Your task to perform on an android device: see creations saved in the google photos Image 0: 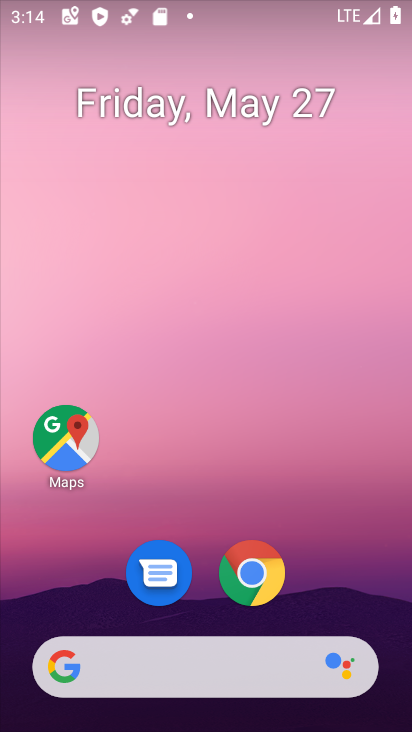
Step 0: drag from (254, 487) to (286, 0)
Your task to perform on an android device: see creations saved in the google photos Image 1: 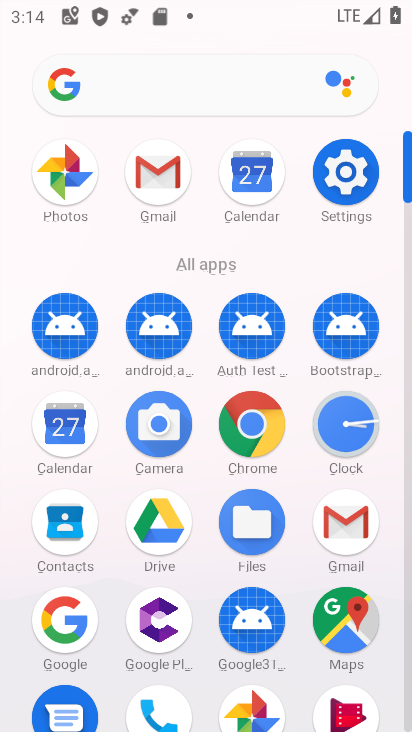
Step 1: click (53, 169)
Your task to perform on an android device: see creations saved in the google photos Image 2: 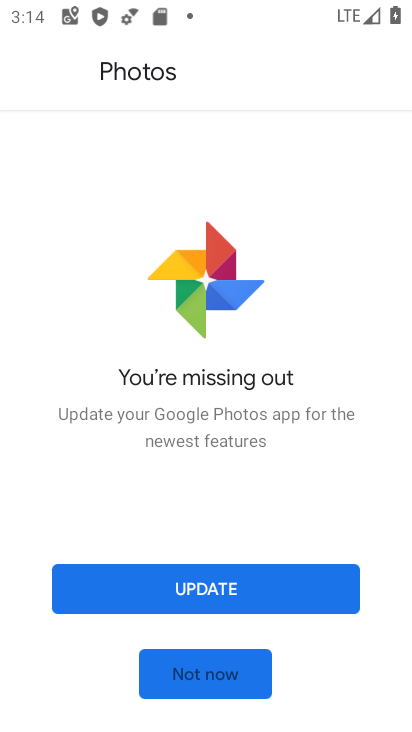
Step 2: click (241, 671)
Your task to perform on an android device: see creations saved in the google photos Image 3: 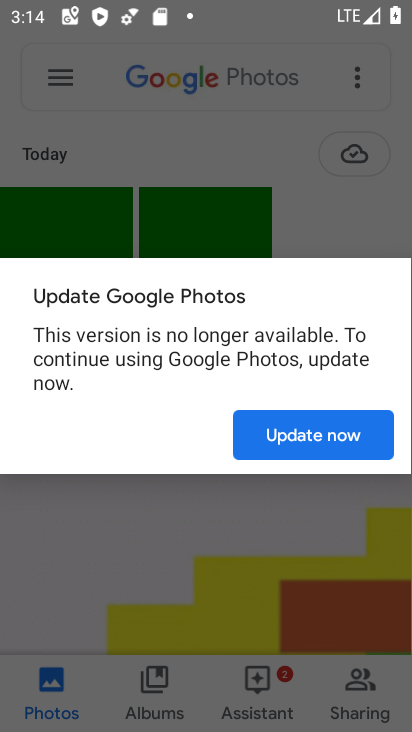
Step 3: click (339, 430)
Your task to perform on an android device: see creations saved in the google photos Image 4: 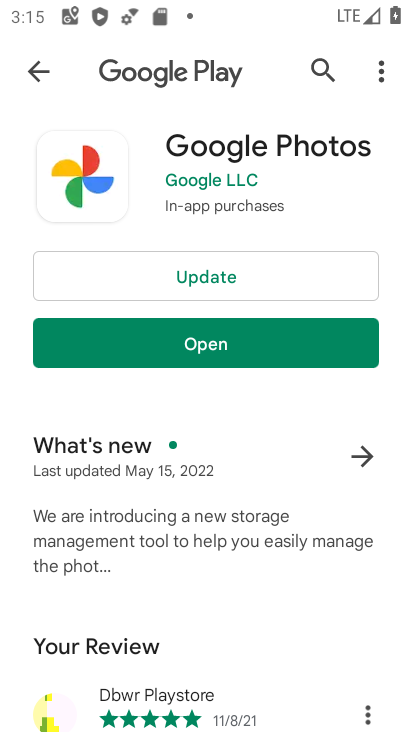
Step 4: click (276, 353)
Your task to perform on an android device: see creations saved in the google photos Image 5: 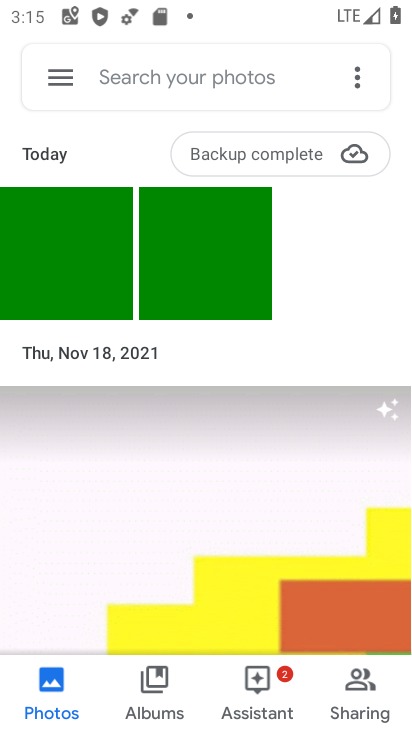
Step 5: click (256, 68)
Your task to perform on an android device: see creations saved in the google photos Image 6: 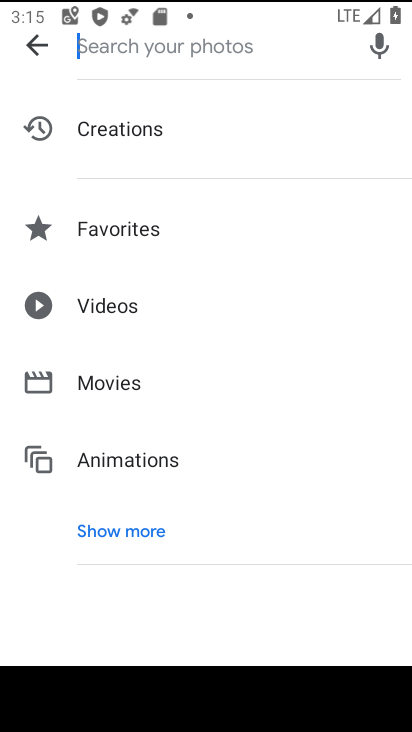
Step 6: click (149, 130)
Your task to perform on an android device: see creations saved in the google photos Image 7: 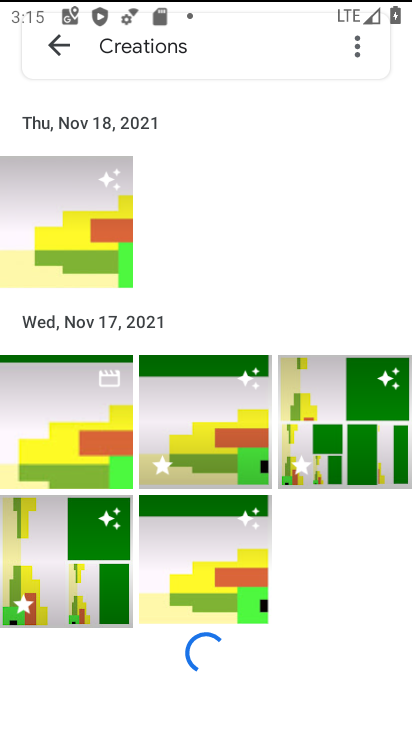
Step 7: task complete